Your task to perform on an android device: turn off priority inbox in the gmail app Image 0: 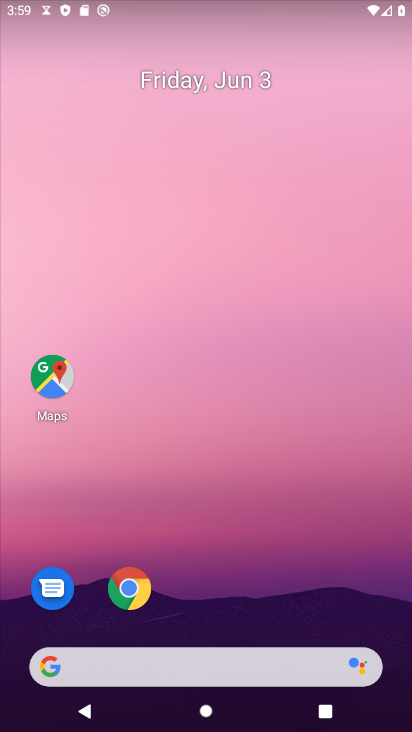
Step 0: drag from (218, 424) to (200, 209)
Your task to perform on an android device: turn off priority inbox in the gmail app Image 1: 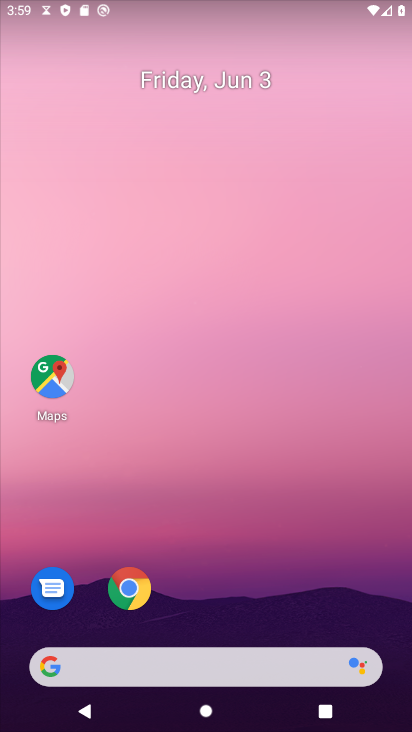
Step 1: drag from (228, 614) to (218, 189)
Your task to perform on an android device: turn off priority inbox in the gmail app Image 2: 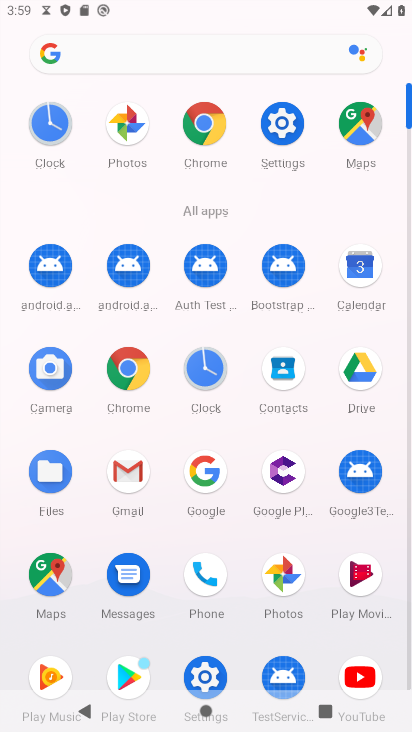
Step 2: click (129, 480)
Your task to perform on an android device: turn off priority inbox in the gmail app Image 3: 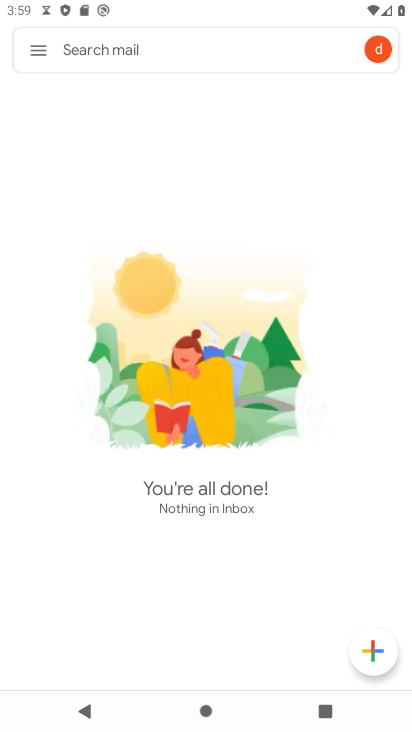
Step 3: click (40, 52)
Your task to perform on an android device: turn off priority inbox in the gmail app Image 4: 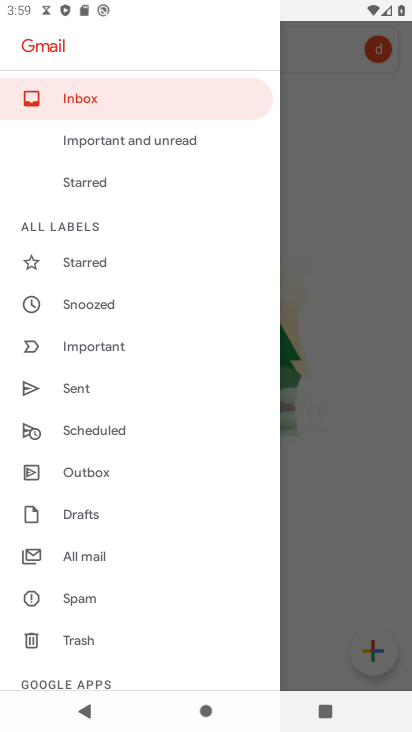
Step 4: drag from (81, 457) to (108, 200)
Your task to perform on an android device: turn off priority inbox in the gmail app Image 5: 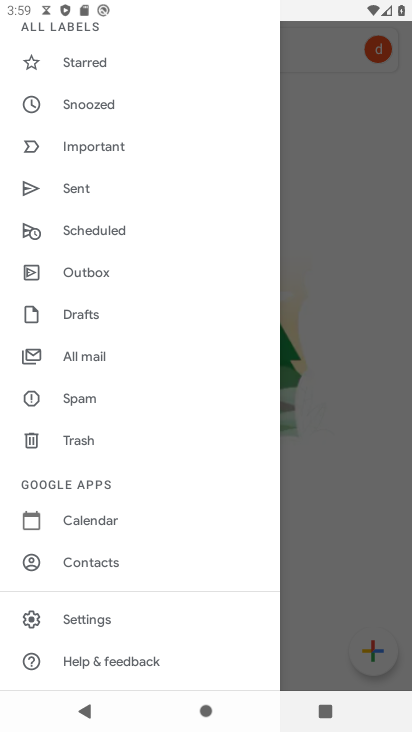
Step 5: click (106, 625)
Your task to perform on an android device: turn off priority inbox in the gmail app Image 6: 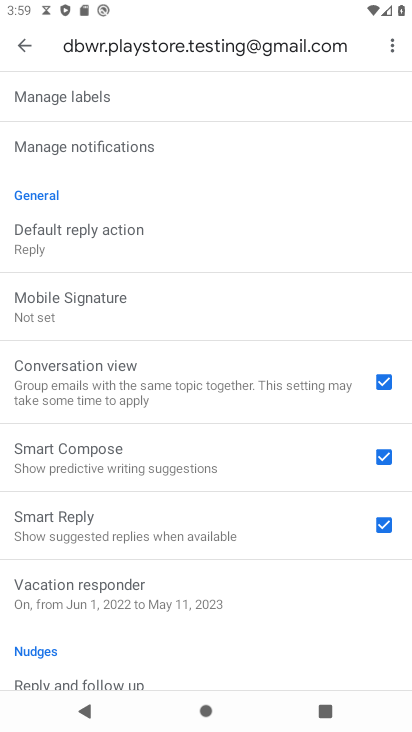
Step 6: drag from (88, 126) to (80, 722)
Your task to perform on an android device: turn off priority inbox in the gmail app Image 7: 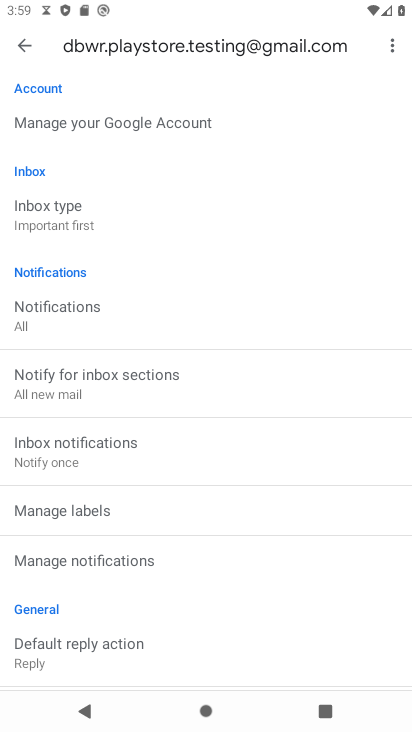
Step 7: click (111, 219)
Your task to perform on an android device: turn off priority inbox in the gmail app Image 8: 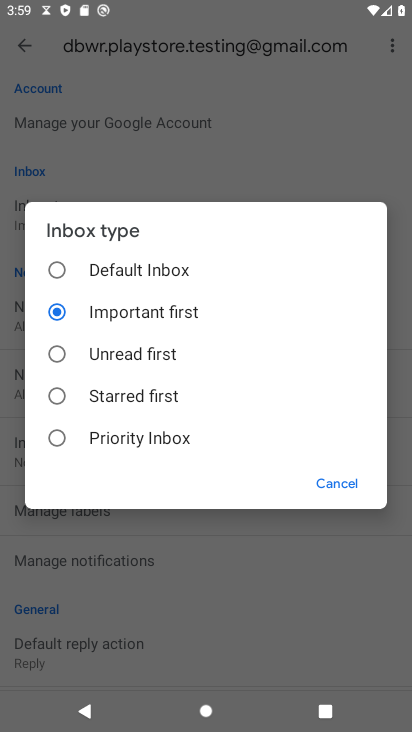
Step 8: task complete